Your task to perform on an android device: Open Reddit.com Image 0: 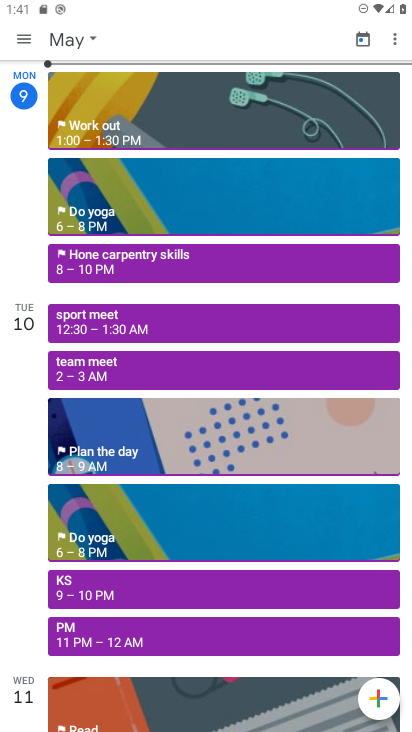
Step 0: press home button
Your task to perform on an android device: Open Reddit.com Image 1: 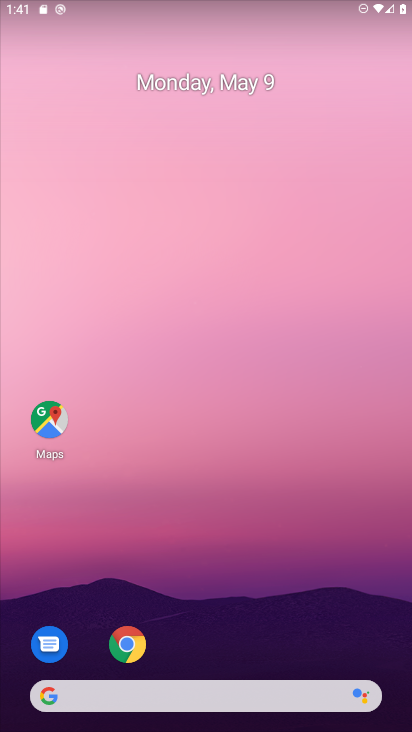
Step 1: click (136, 648)
Your task to perform on an android device: Open Reddit.com Image 2: 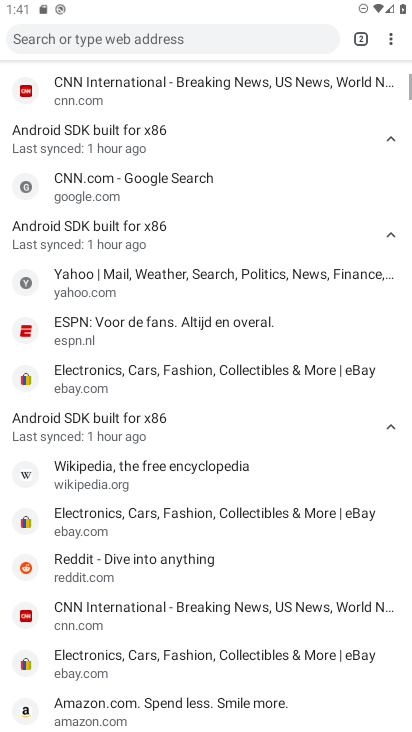
Step 2: click (139, 42)
Your task to perform on an android device: Open Reddit.com Image 3: 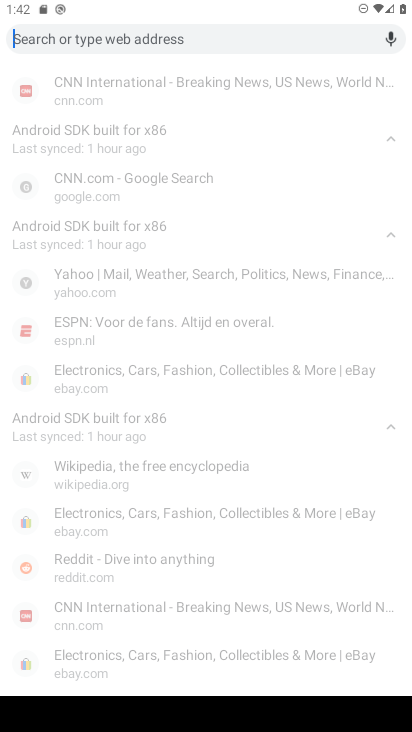
Step 3: click (140, 580)
Your task to perform on an android device: Open Reddit.com Image 4: 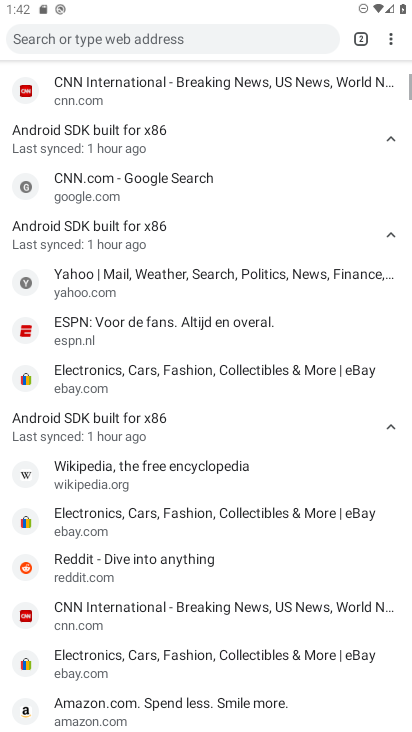
Step 4: click (104, 580)
Your task to perform on an android device: Open Reddit.com Image 5: 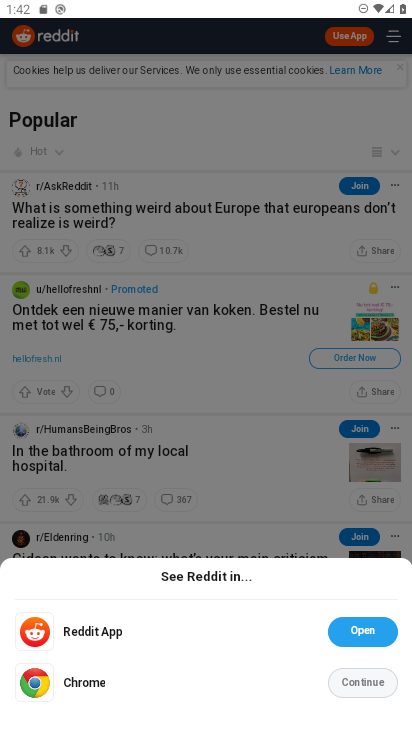
Step 5: click (355, 697)
Your task to perform on an android device: Open Reddit.com Image 6: 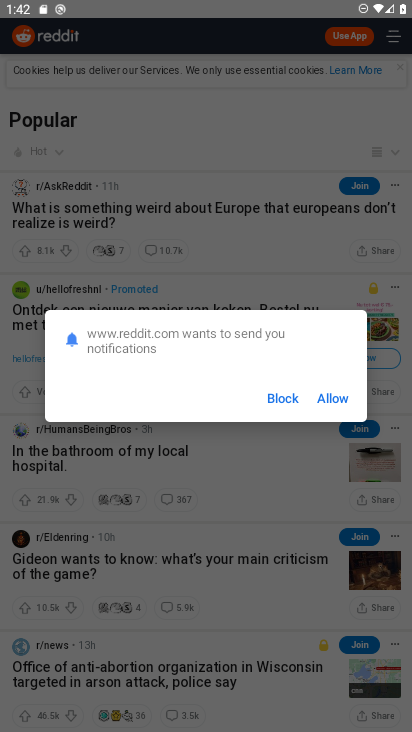
Step 6: click (288, 395)
Your task to perform on an android device: Open Reddit.com Image 7: 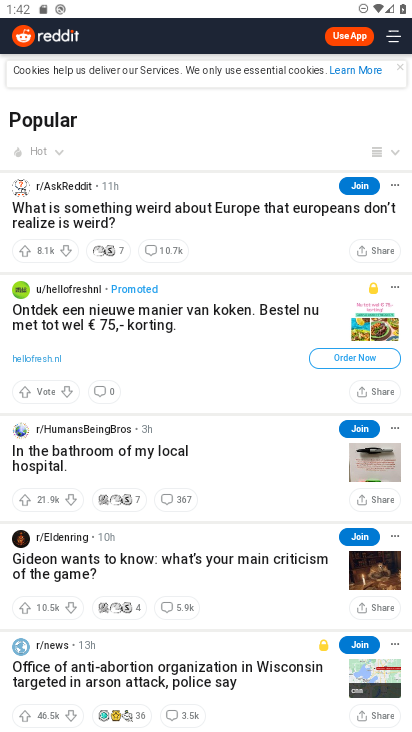
Step 7: task complete